Your task to perform on an android device: Search for alienware area 51 on costco, select the first entry, and add it to the cart. Image 0: 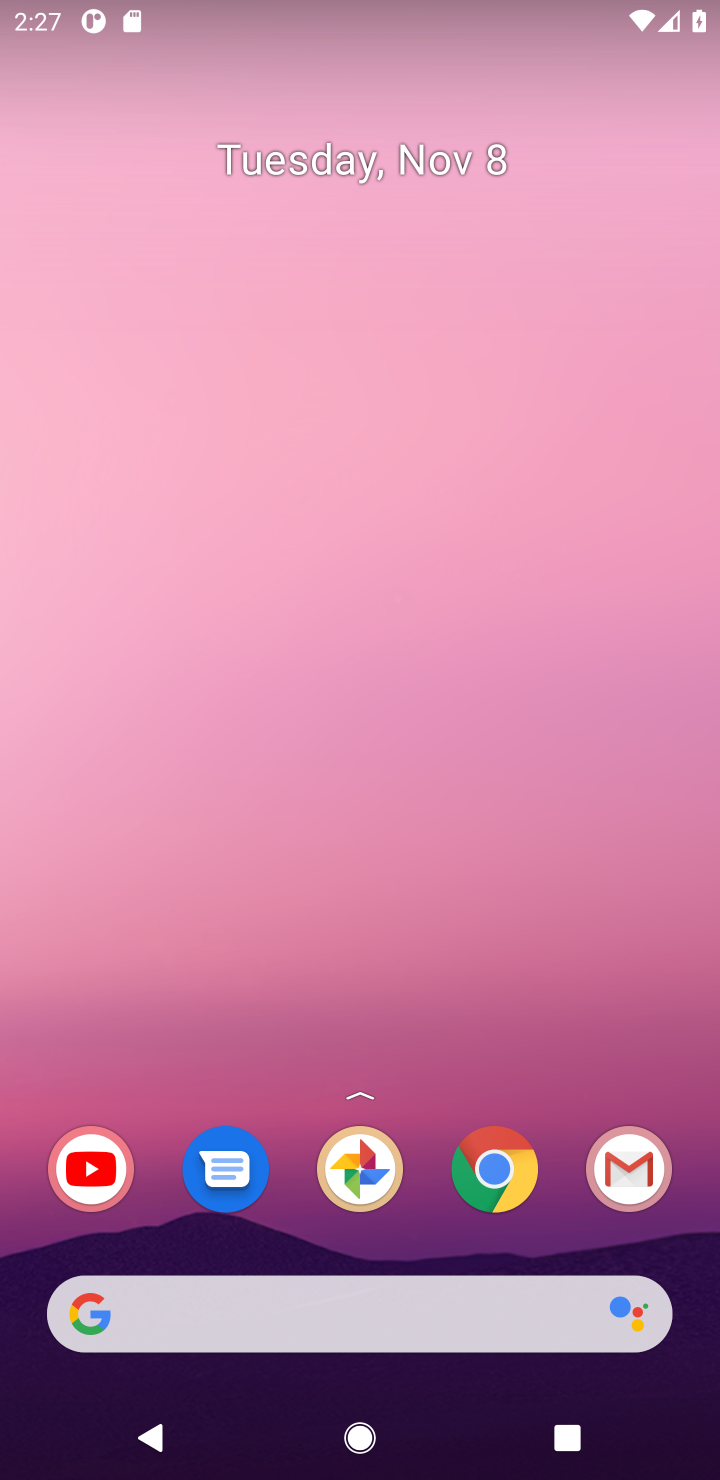
Step 0: click (498, 1222)
Your task to perform on an android device: Search for alienware area 51 on costco, select the first entry, and add it to the cart. Image 1: 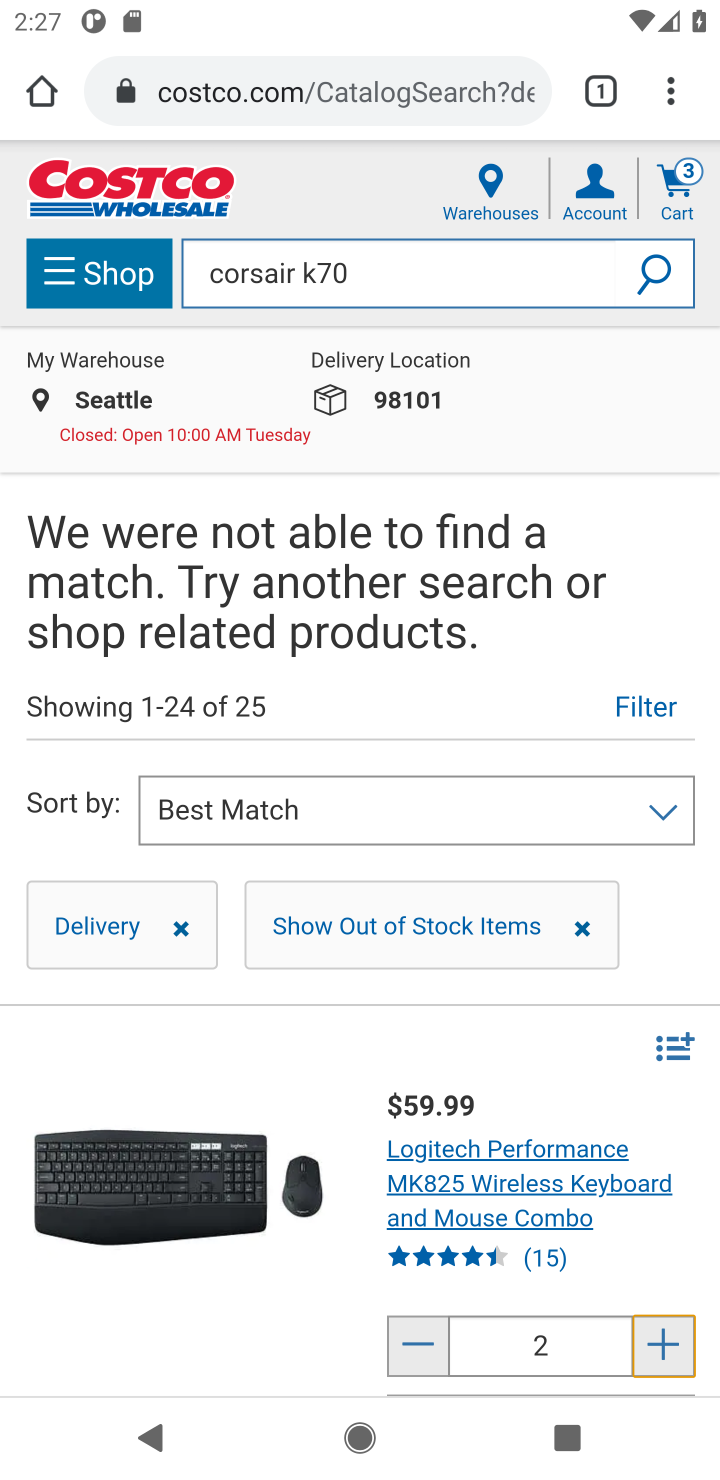
Step 1: click (426, 80)
Your task to perform on an android device: Search for alienware area 51 on costco, select the first entry, and add it to the cart. Image 2: 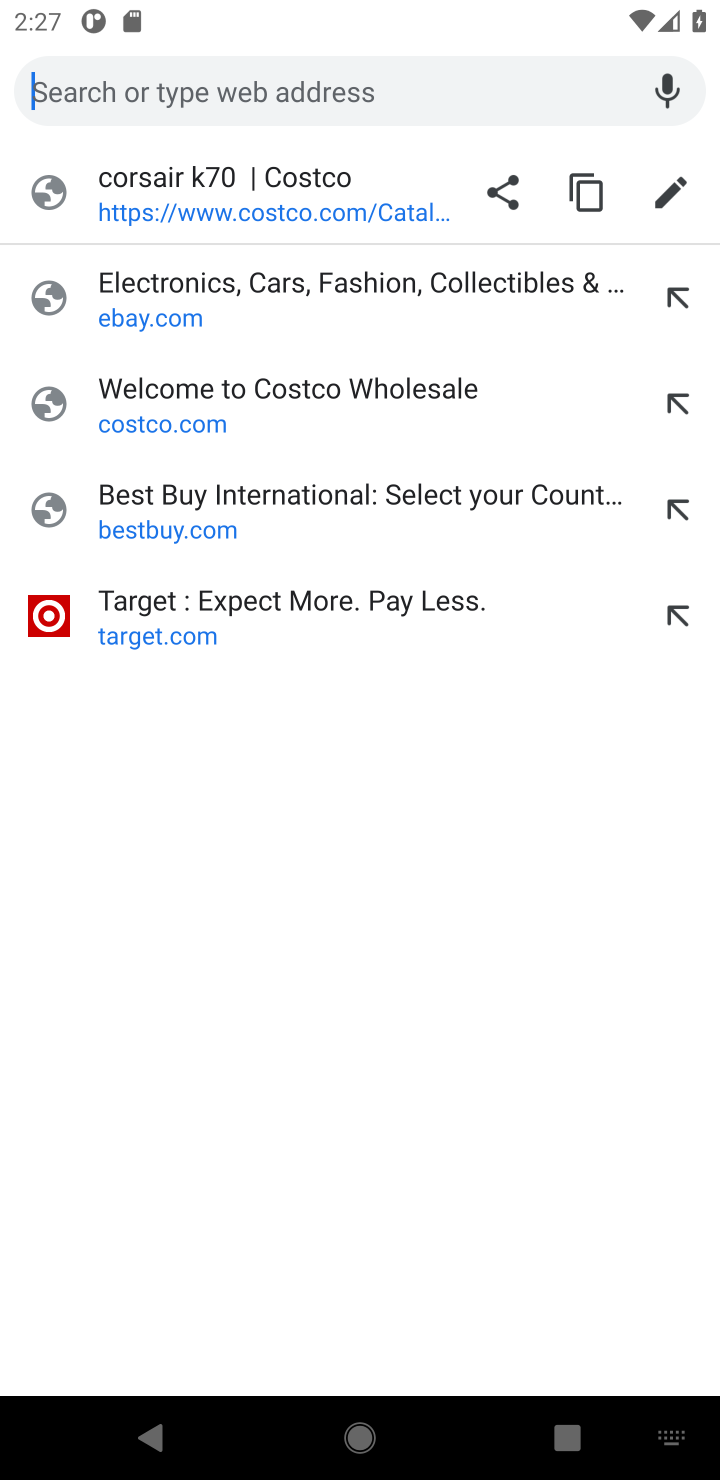
Step 2: type "costco"
Your task to perform on an android device: Search for alienware area 51 on costco, select the first entry, and add it to the cart. Image 3: 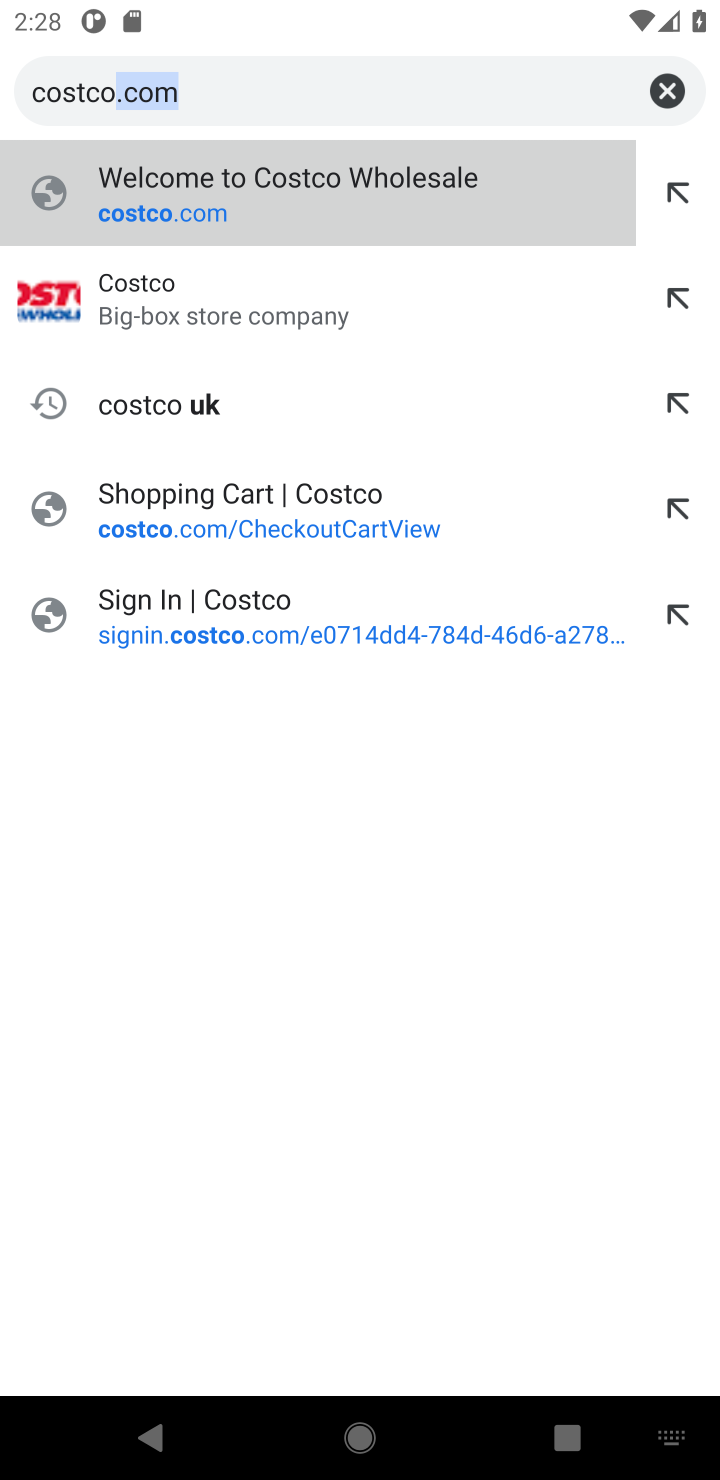
Step 3: click (384, 173)
Your task to perform on an android device: Search for alienware area 51 on costco, select the first entry, and add it to the cart. Image 4: 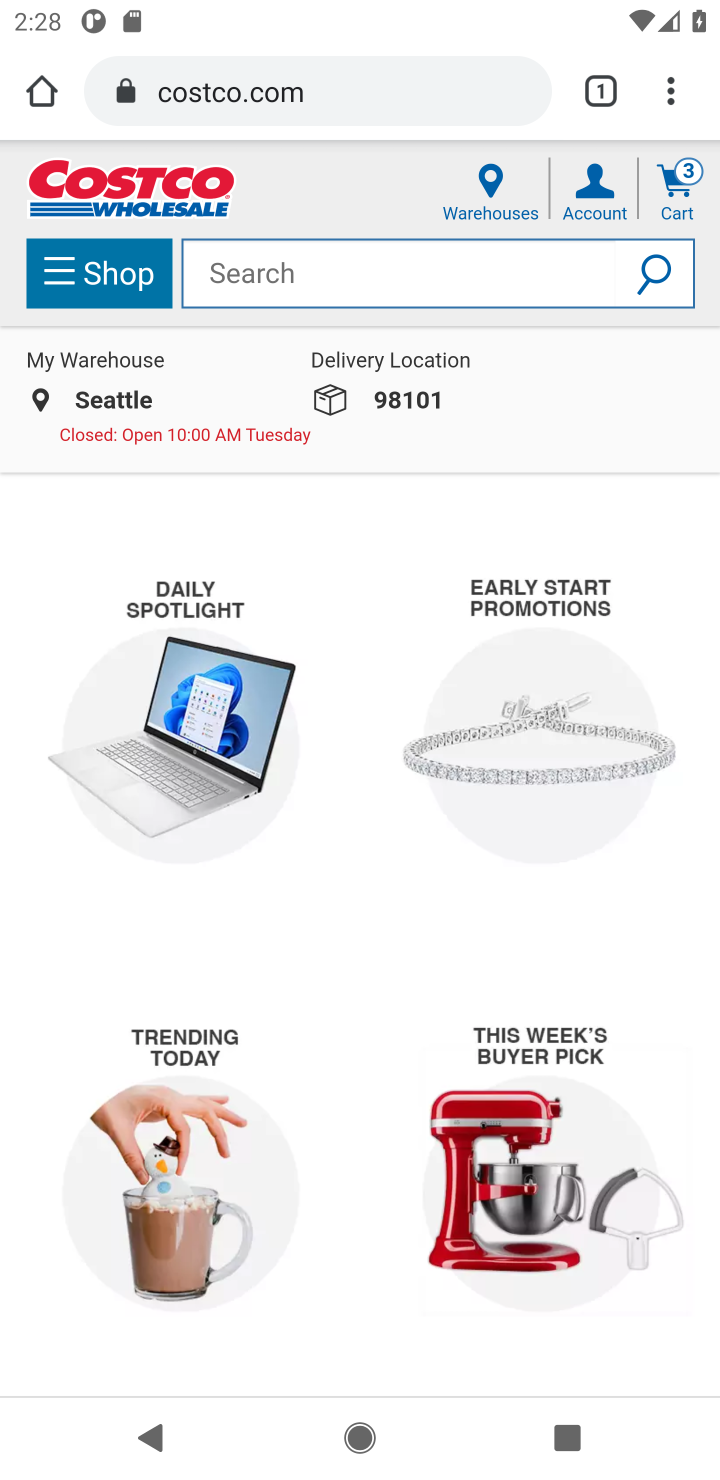
Step 4: click (344, 276)
Your task to perform on an android device: Search for alienware area 51 on costco, select the first entry, and add it to the cart. Image 5: 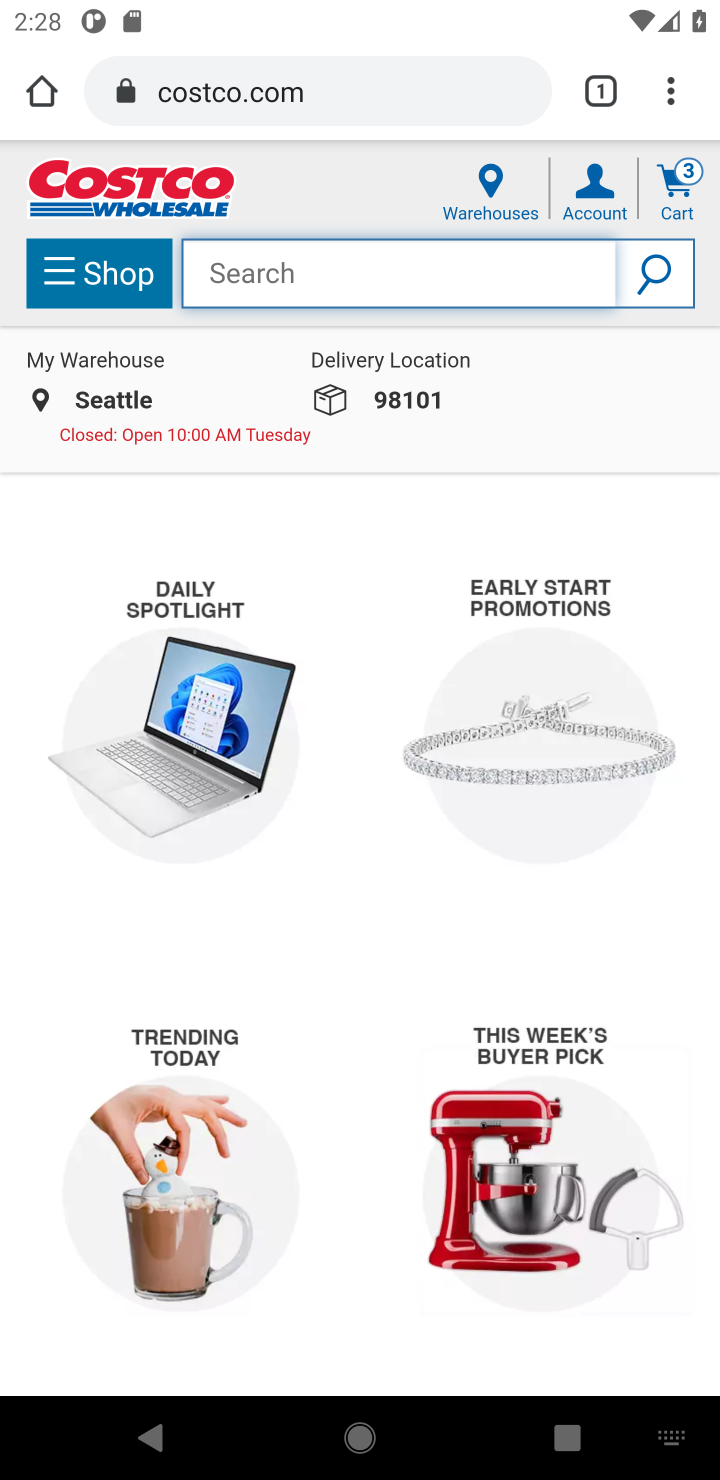
Step 5: type "alienware area 51"
Your task to perform on an android device: Search for alienware area 51 on costco, select the first entry, and add it to the cart. Image 6: 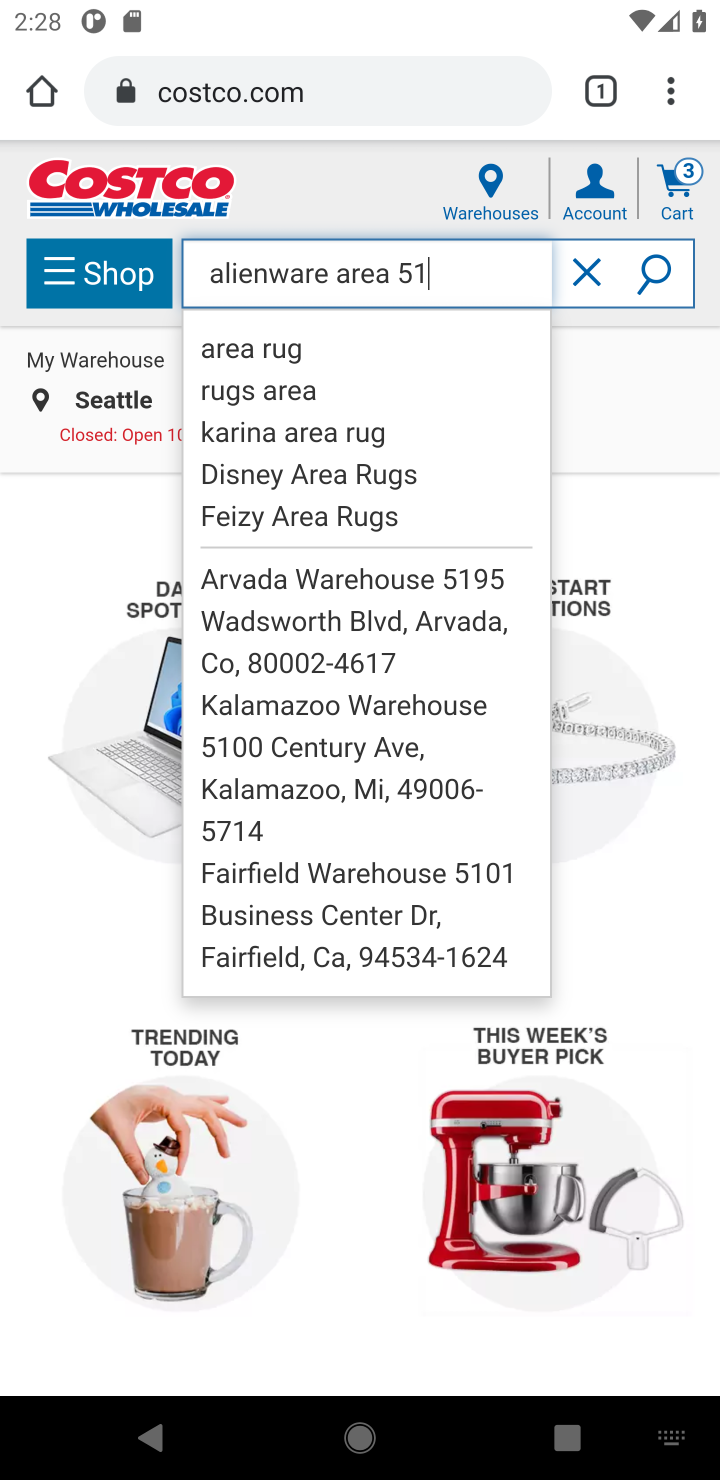
Step 6: press enter
Your task to perform on an android device: Search for alienware area 51 on costco, select the first entry, and add it to the cart. Image 7: 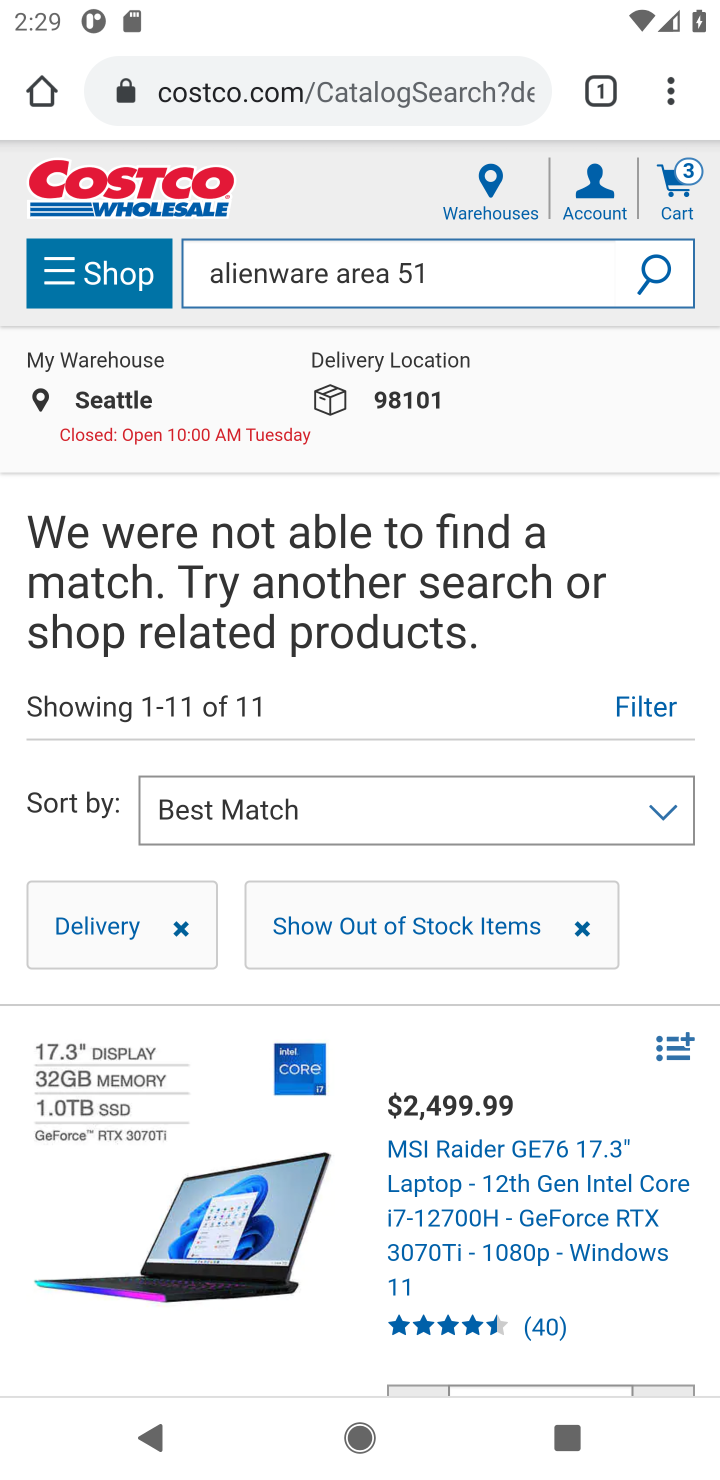
Step 7: drag from (354, 860) to (246, 568)
Your task to perform on an android device: Search for alienware area 51 on costco, select the first entry, and add it to the cart. Image 8: 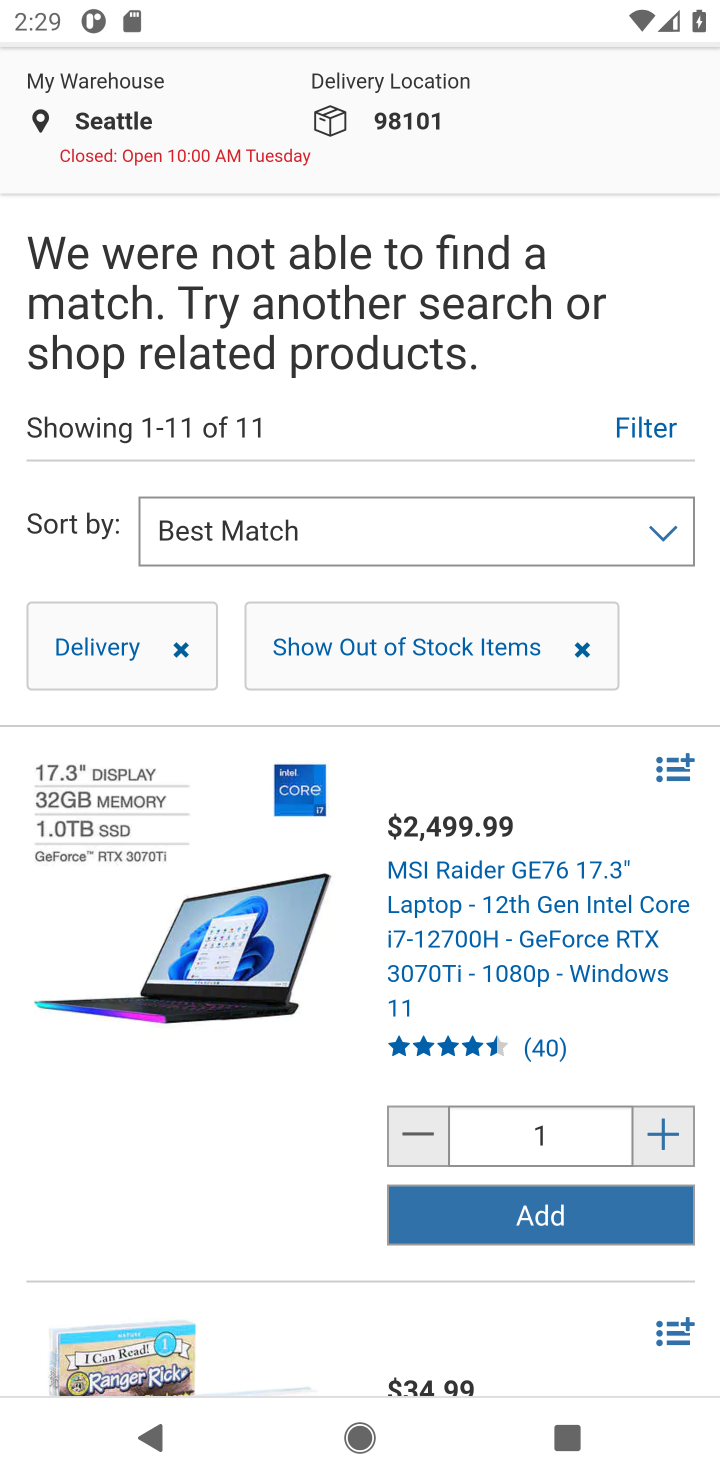
Step 8: click (461, 1234)
Your task to perform on an android device: Search for alienware area 51 on costco, select the first entry, and add it to the cart. Image 9: 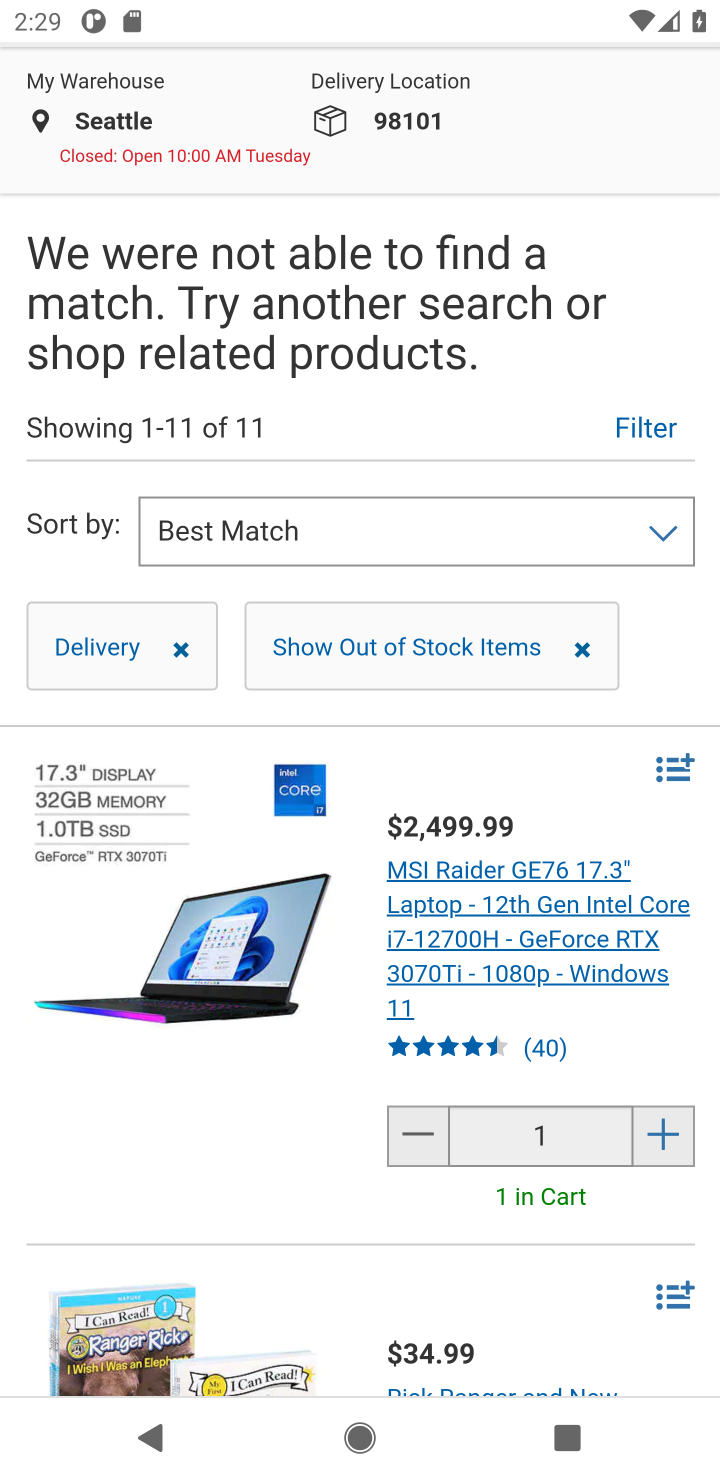
Step 9: task complete